Your task to perform on an android device: Open Google Chrome and click the shortcut for Amazon.com Image 0: 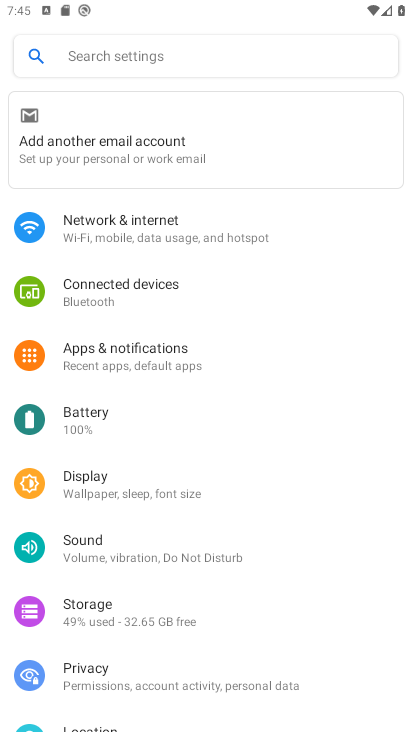
Step 0: press home button
Your task to perform on an android device: Open Google Chrome and click the shortcut for Amazon.com Image 1: 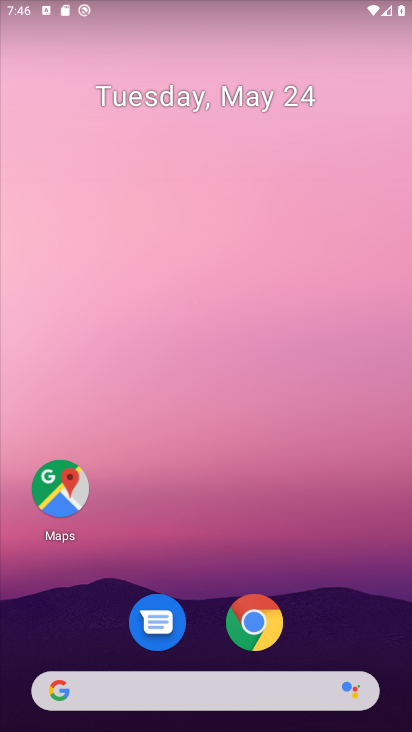
Step 1: drag from (300, 541) to (251, 105)
Your task to perform on an android device: Open Google Chrome and click the shortcut for Amazon.com Image 2: 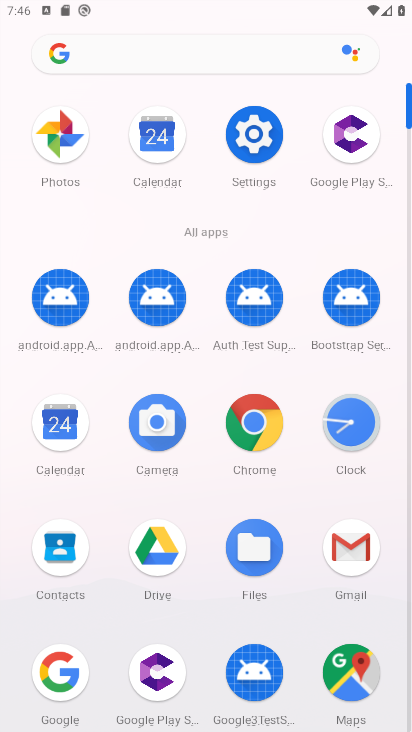
Step 2: click (253, 425)
Your task to perform on an android device: Open Google Chrome and click the shortcut for Amazon.com Image 3: 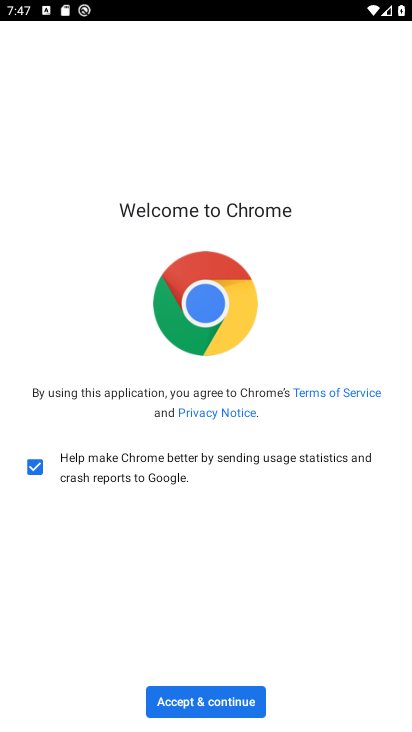
Step 3: click (196, 697)
Your task to perform on an android device: Open Google Chrome and click the shortcut for Amazon.com Image 4: 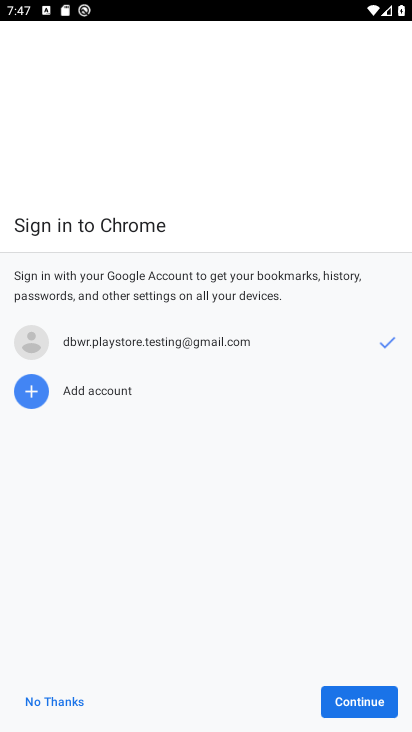
Step 4: click (338, 699)
Your task to perform on an android device: Open Google Chrome and click the shortcut for Amazon.com Image 5: 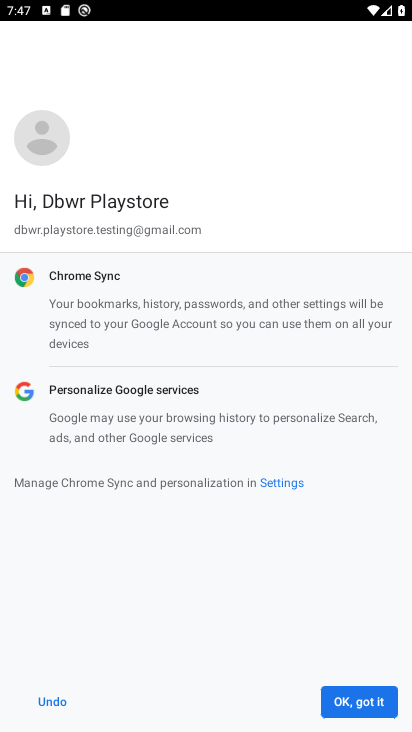
Step 5: click (373, 714)
Your task to perform on an android device: Open Google Chrome and click the shortcut for Amazon.com Image 6: 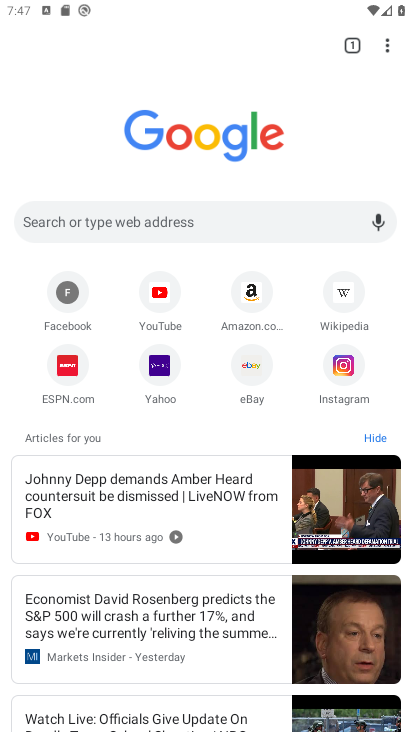
Step 6: click (257, 300)
Your task to perform on an android device: Open Google Chrome and click the shortcut for Amazon.com Image 7: 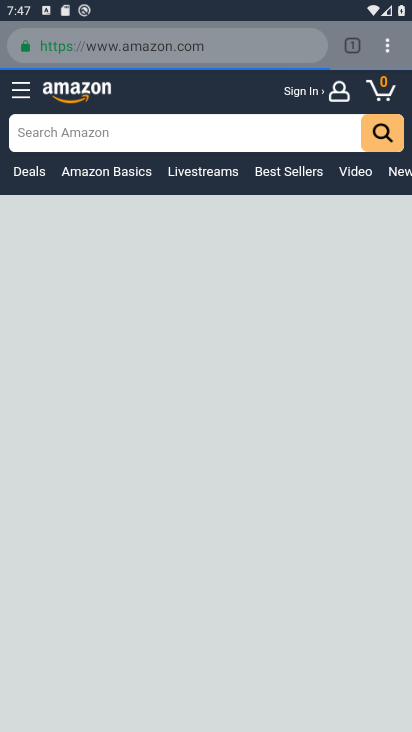
Step 7: task complete